Your task to perform on an android device: turn off javascript in the chrome app Image 0: 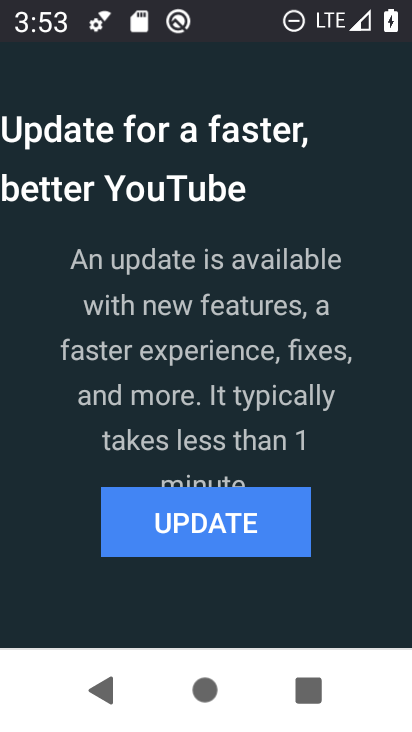
Step 0: press home button
Your task to perform on an android device: turn off javascript in the chrome app Image 1: 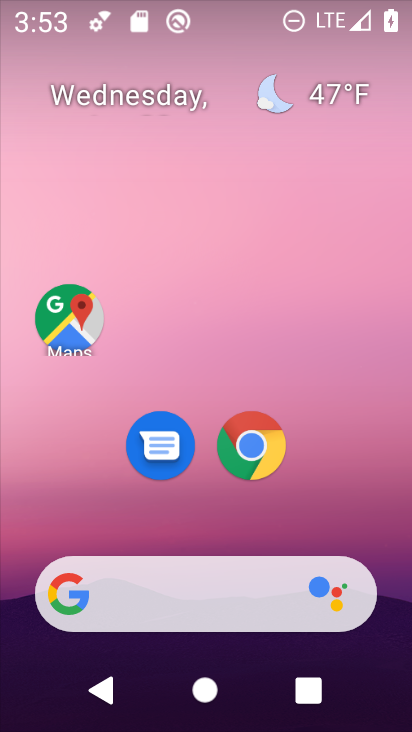
Step 1: click (254, 449)
Your task to perform on an android device: turn off javascript in the chrome app Image 2: 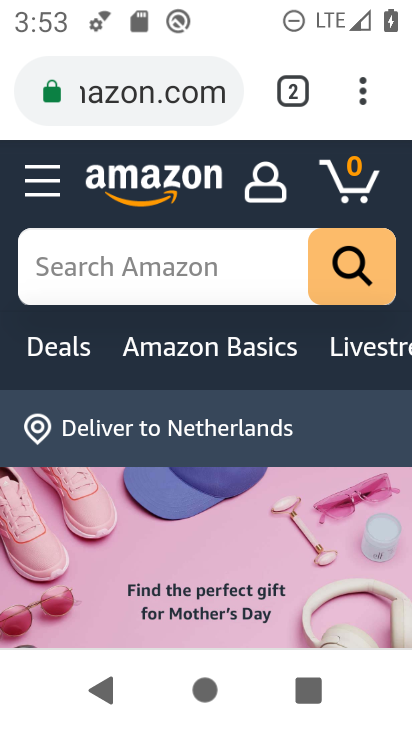
Step 2: click (362, 92)
Your task to perform on an android device: turn off javascript in the chrome app Image 3: 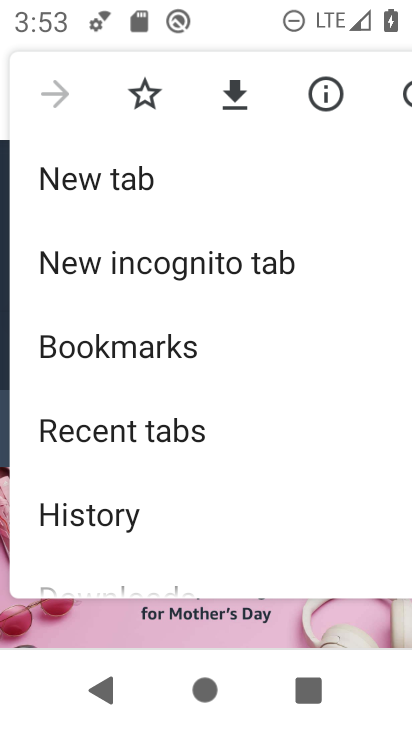
Step 3: drag from (204, 504) to (253, 330)
Your task to perform on an android device: turn off javascript in the chrome app Image 4: 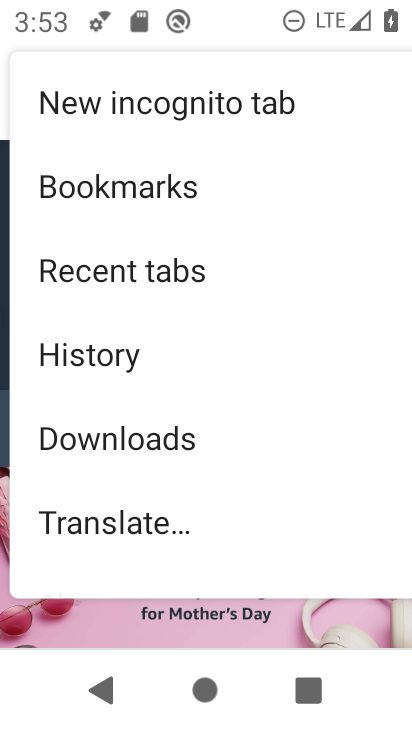
Step 4: drag from (235, 457) to (256, 359)
Your task to perform on an android device: turn off javascript in the chrome app Image 5: 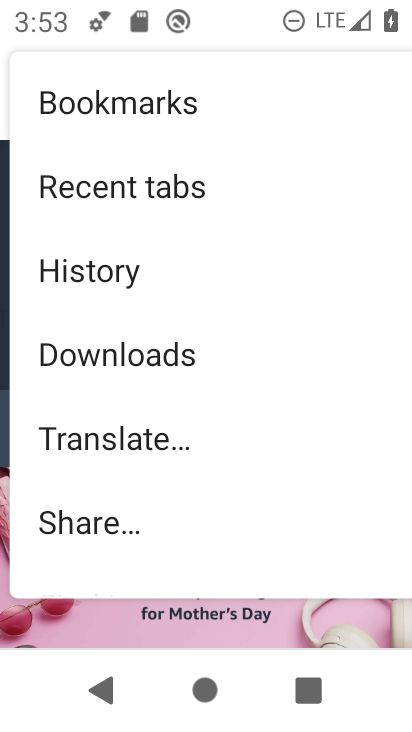
Step 5: drag from (204, 475) to (245, 347)
Your task to perform on an android device: turn off javascript in the chrome app Image 6: 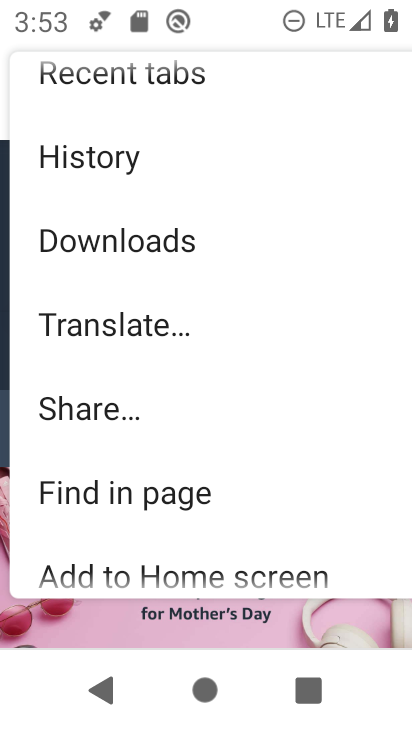
Step 6: drag from (220, 454) to (290, 337)
Your task to perform on an android device: turn off javascript in the chrome app Image 7: 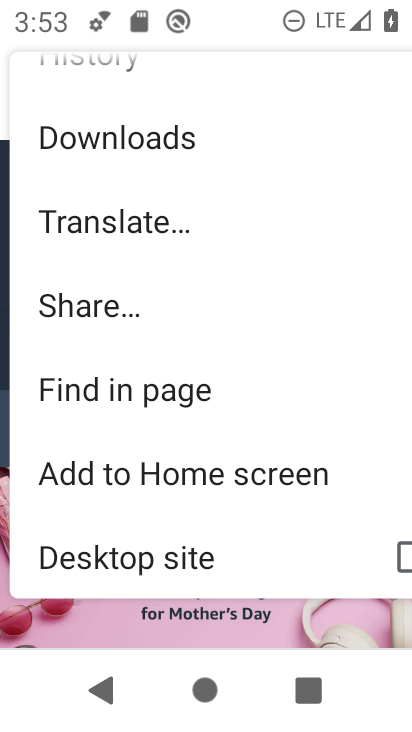
Step 7: drag from (246, 435) to (308, 305)
Your task to perform on an android device: turn off javascript in the chrome app Image 8: 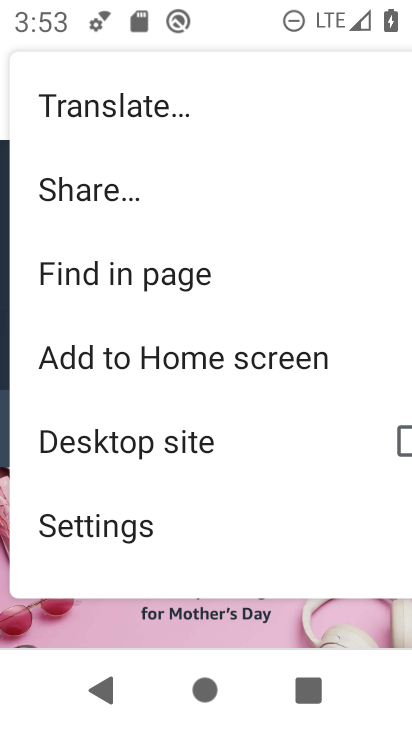
Step 8: drag from (231, 513) to (298, 348)
Your task to perform on an android device: turn off javascript in the chrome app Image 9: 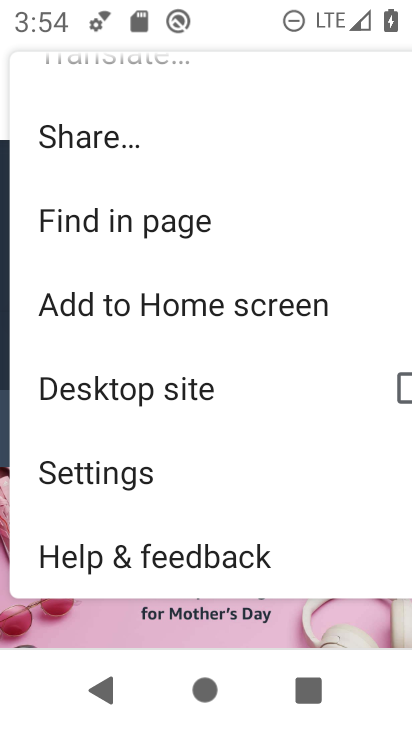
Step 9: click (132, 480)
Your task to perform on an android device: turn off javascript in the chrome app Image 10: 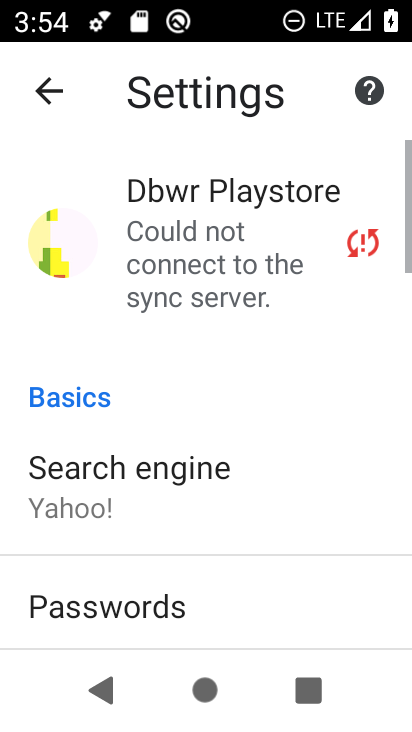
Step 10: drag from (197, 523) to (238, 393)
Your task to perform on an android device: turn off javascript in the chrome app Image 11: 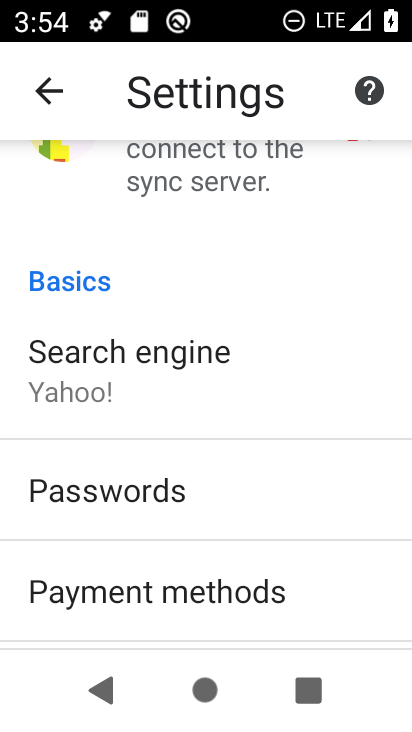
Step 11: drag from (219, 517) to (250, 371)
Your task to perform on an android device: turn off javascript in the chrome app Image 12: 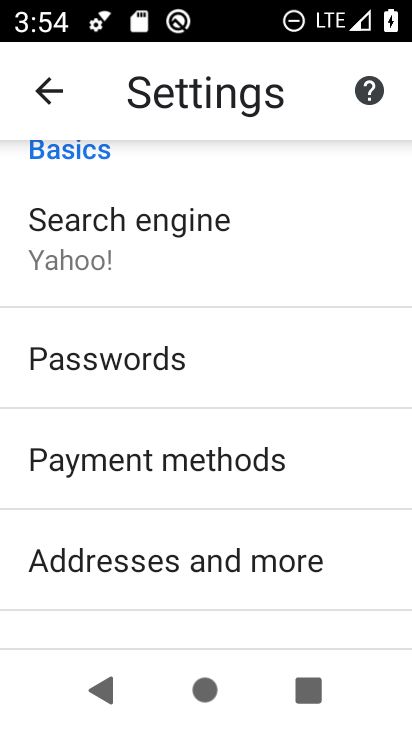
Step 12: drag from (196, 498) to (274, 380)
Your task to perform on an android device: turn off javascript in the chrome app Image 13: 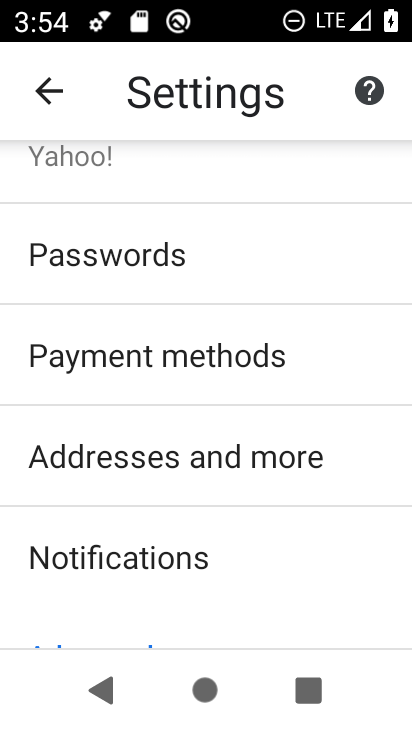
Step 13: drag from (220, 506) to (270, 378)
Your task to perform on an android device: turn off javascript in the chrome app Image 14: 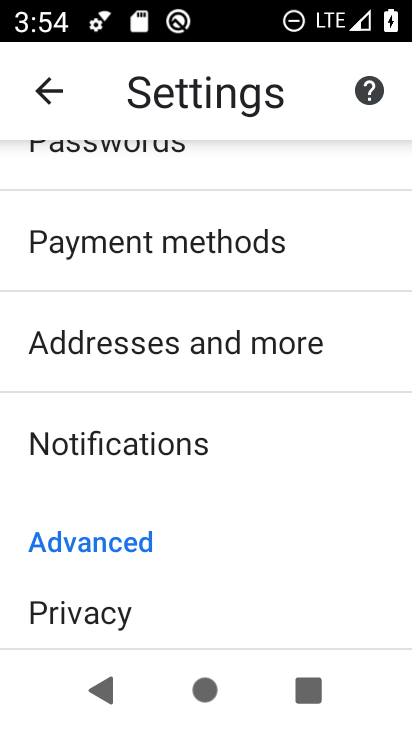
Step 14: drag from (217, 490) to (251, 370)
Your task to perform on an android device: turn off javascript in the chrome app Image 15: 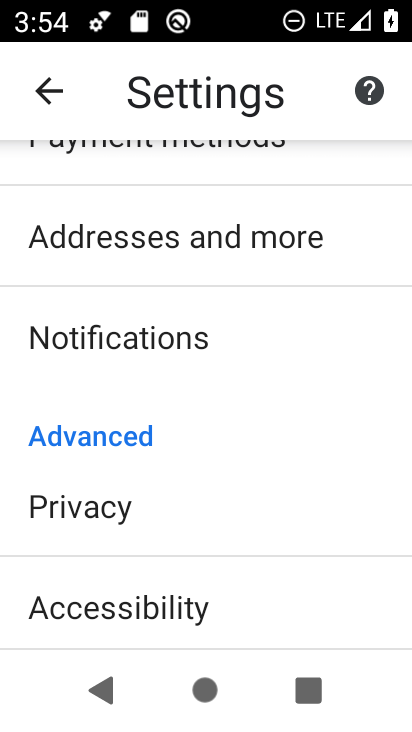
Step 15: drag from (201, 572) to (258, 430)
Your task to perform on an android device: turn off javascript in the chrome app Image 16: 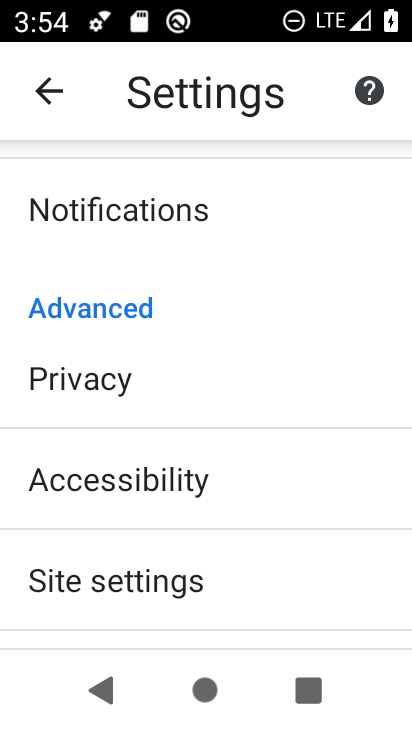
Step 16: drag from (209, 581) to (265, 448)
Your task to perform on an android device: turn off javascript in the chrome app Image 17: 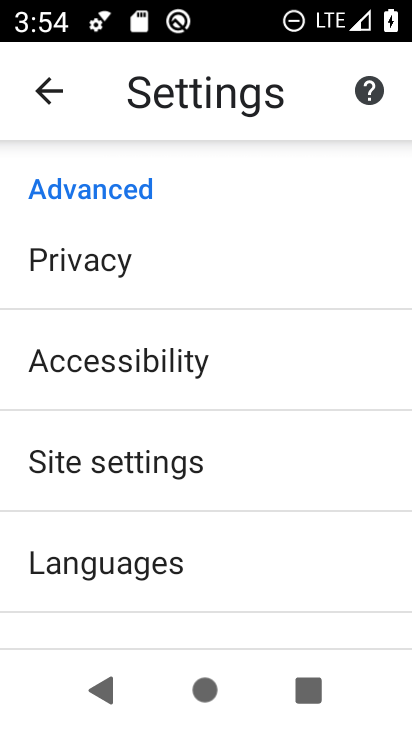
Step 17: drag from (195, 572) to (236, 490)
Your task to perform on an android device: turn off javascript in the chrome app Image 18: 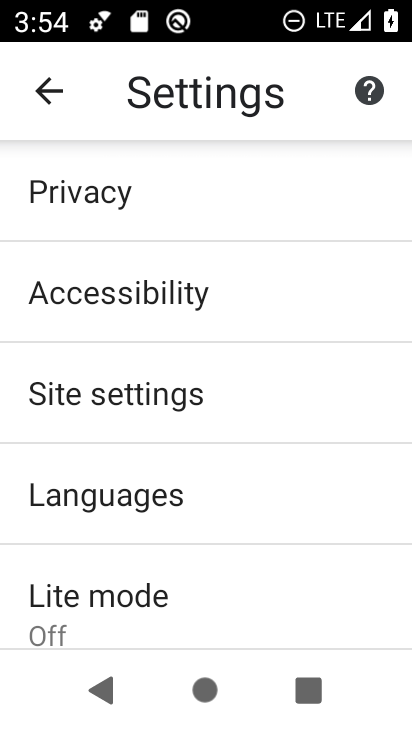
Step 18: click (153, 394)
Your task to perform on an android device: turn off javascript in the chrome app Image 19: 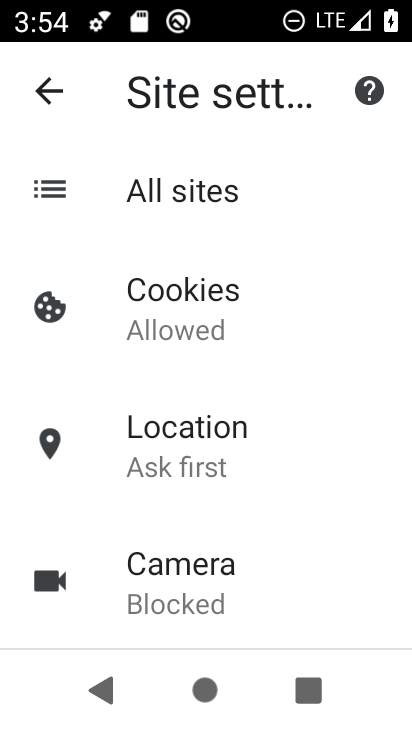
Step 19: drag from (284, 574) to (319, 439)
Your task to perform on an android device: turn off javascript in the chrome app Image 20: 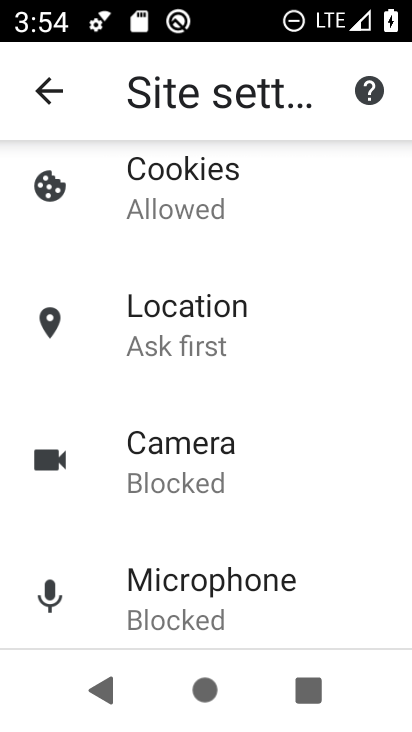
Step 20: drag from (284, 543) to (325, 449)
Your task to perform on an android device: turn off javascript in the chrome app Image 21: 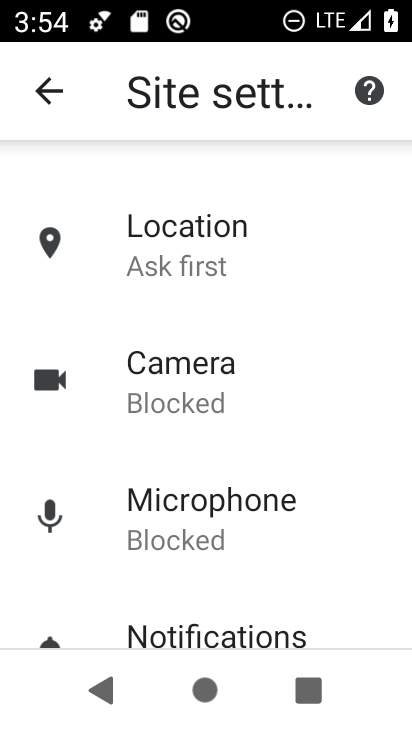
Step 21: drag from (274, 580) to (324, 444)
Your task to perform on an android device: turn off javascript in the chrome app Image 22: 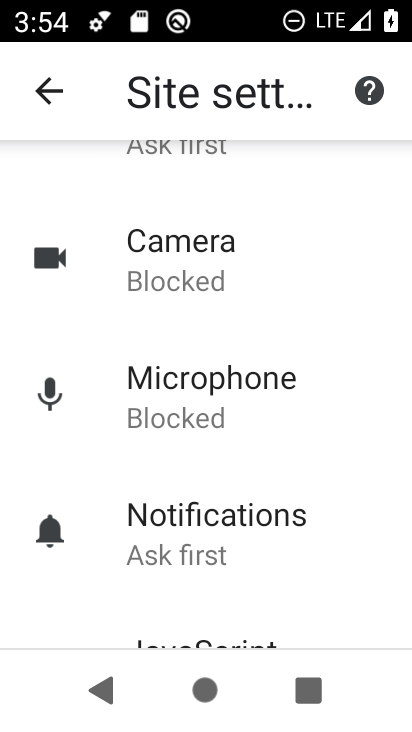
Step 22: drag from (284, 585) to (338, 423)
Your task to perform on an android device: turn off javascript in the chrome app Image 23: 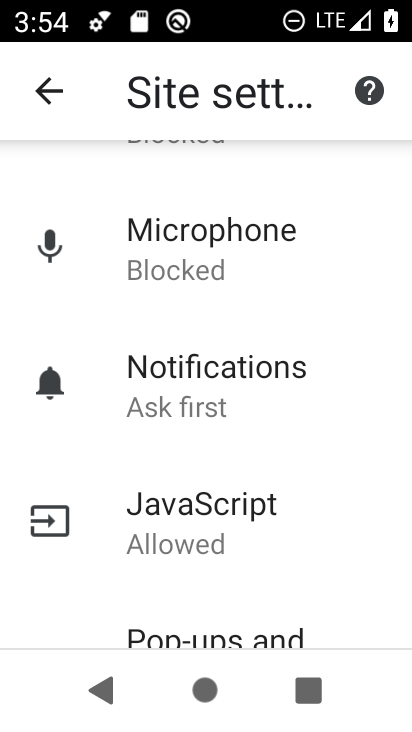
Step 23: click (263, 507)
Your task to perform on an android device: turn off javascript in the chrome app Image 24: 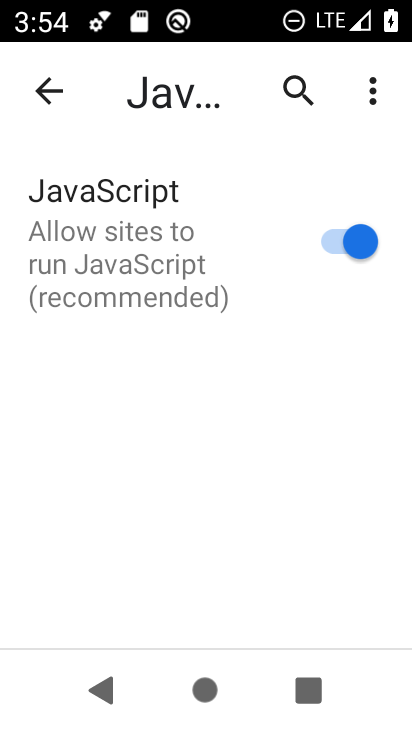
Step 24: click (364, 247)
Your task to perform on an android device: turn off javascript in the chrome app Image 25: 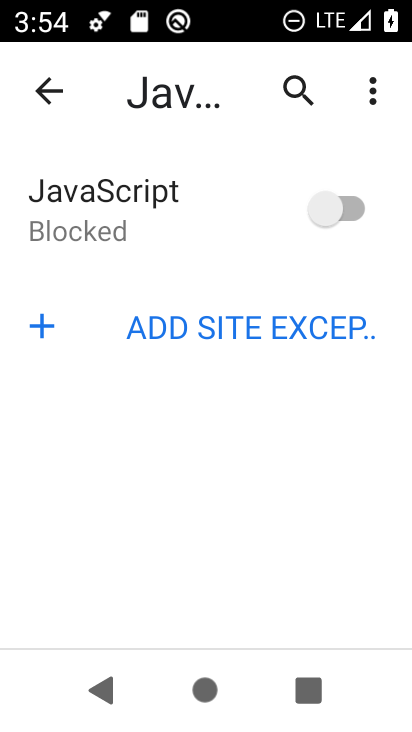
Step 25: task complete